Your task to perform on an android device: check storage Image 0: 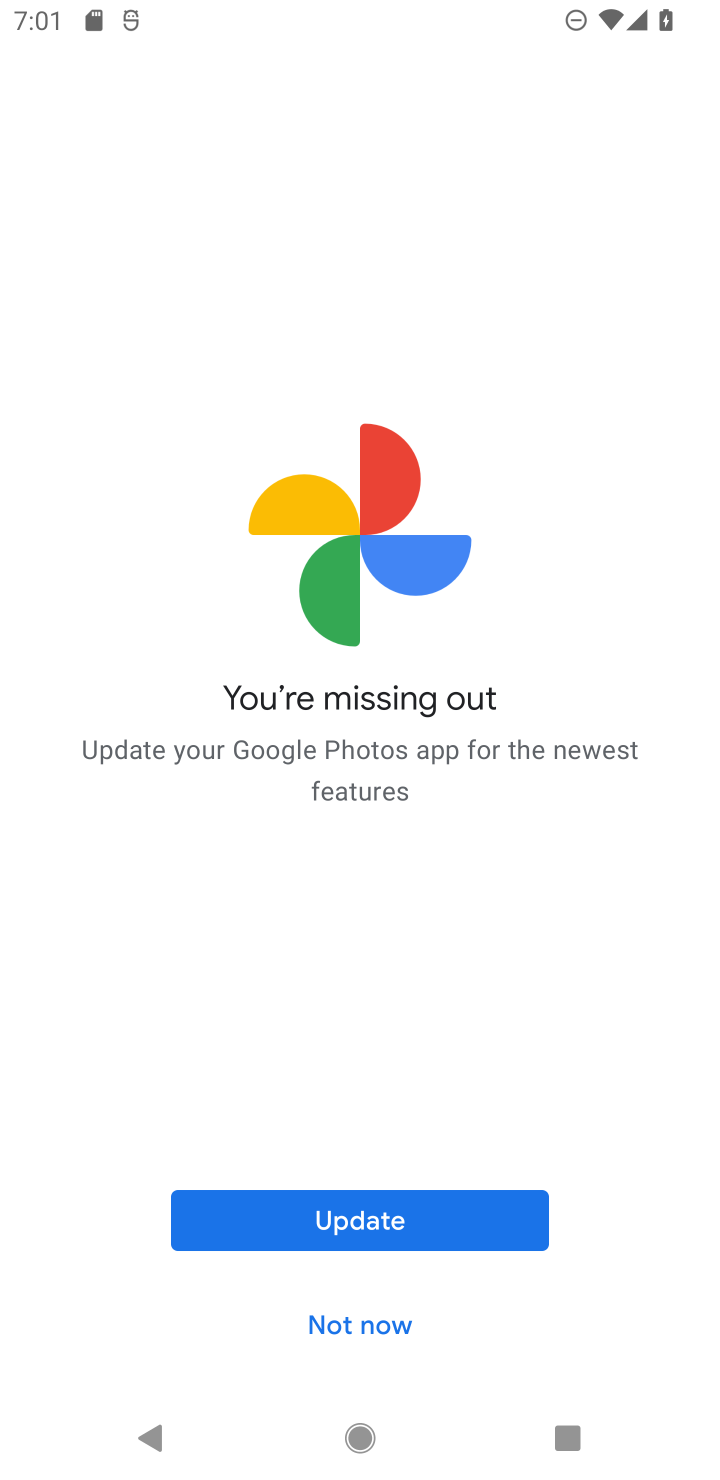
Step 0: press home button
Your task to perform on an android device: check storage Image 1: 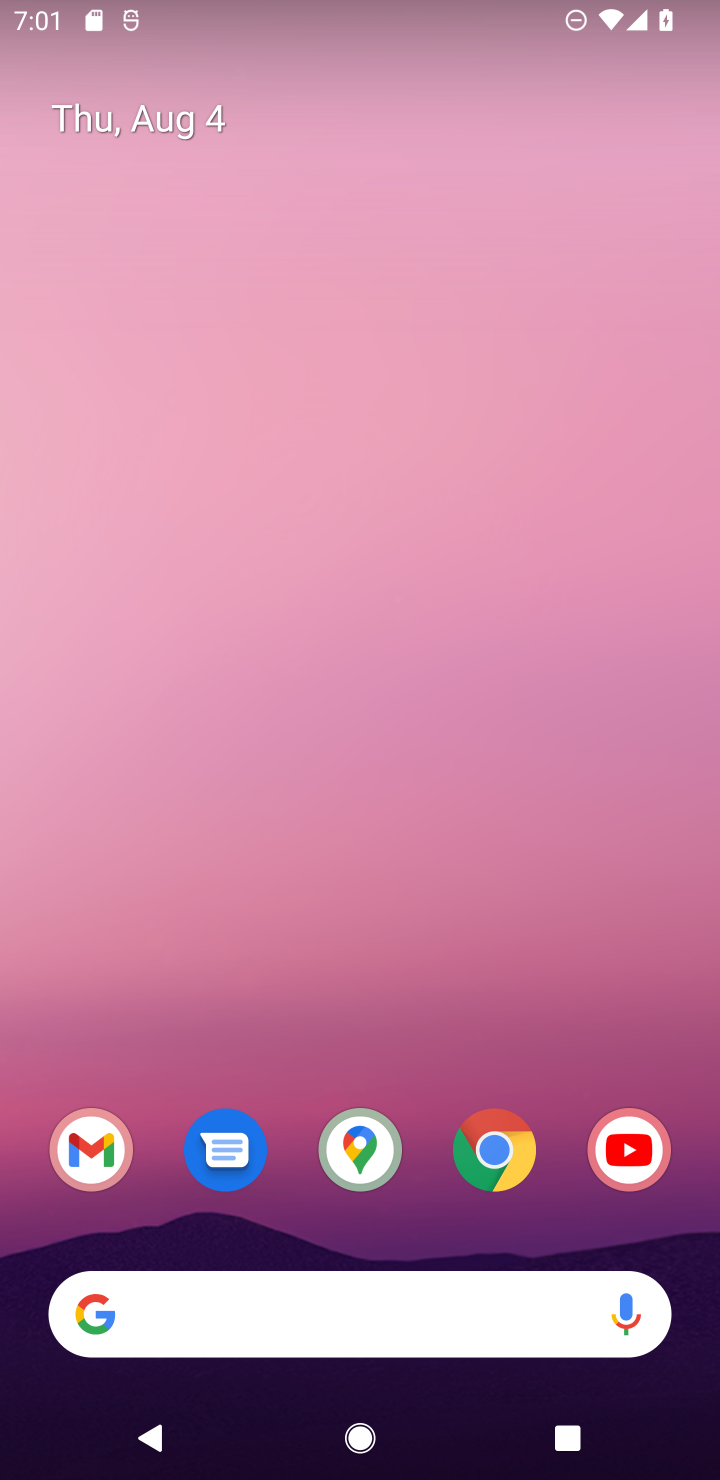
Step 1: drag from (420, 1217) to (187, 93)
Your task to perform on an android device: check storage Image 2: 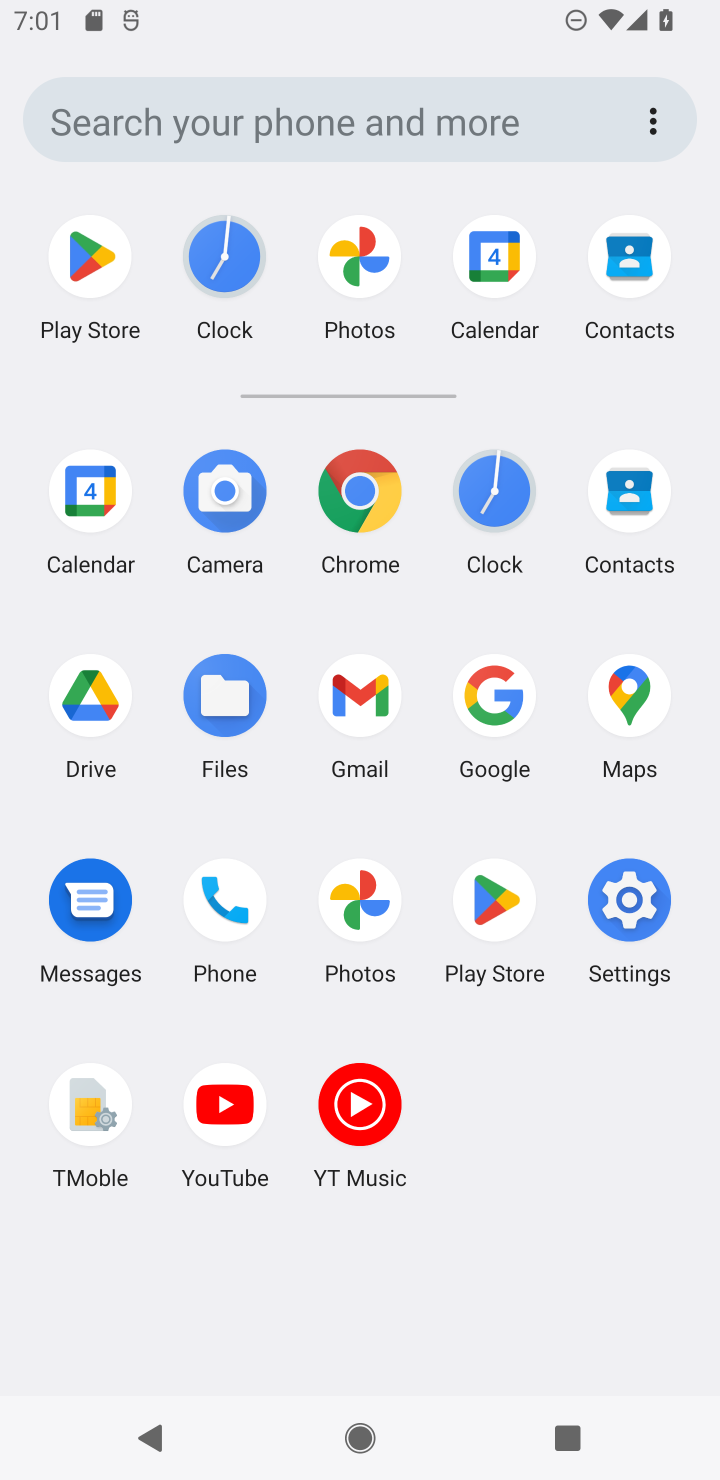
Step 2: click (636, 877)
Your task to perform on an android device: check storage Image 3: 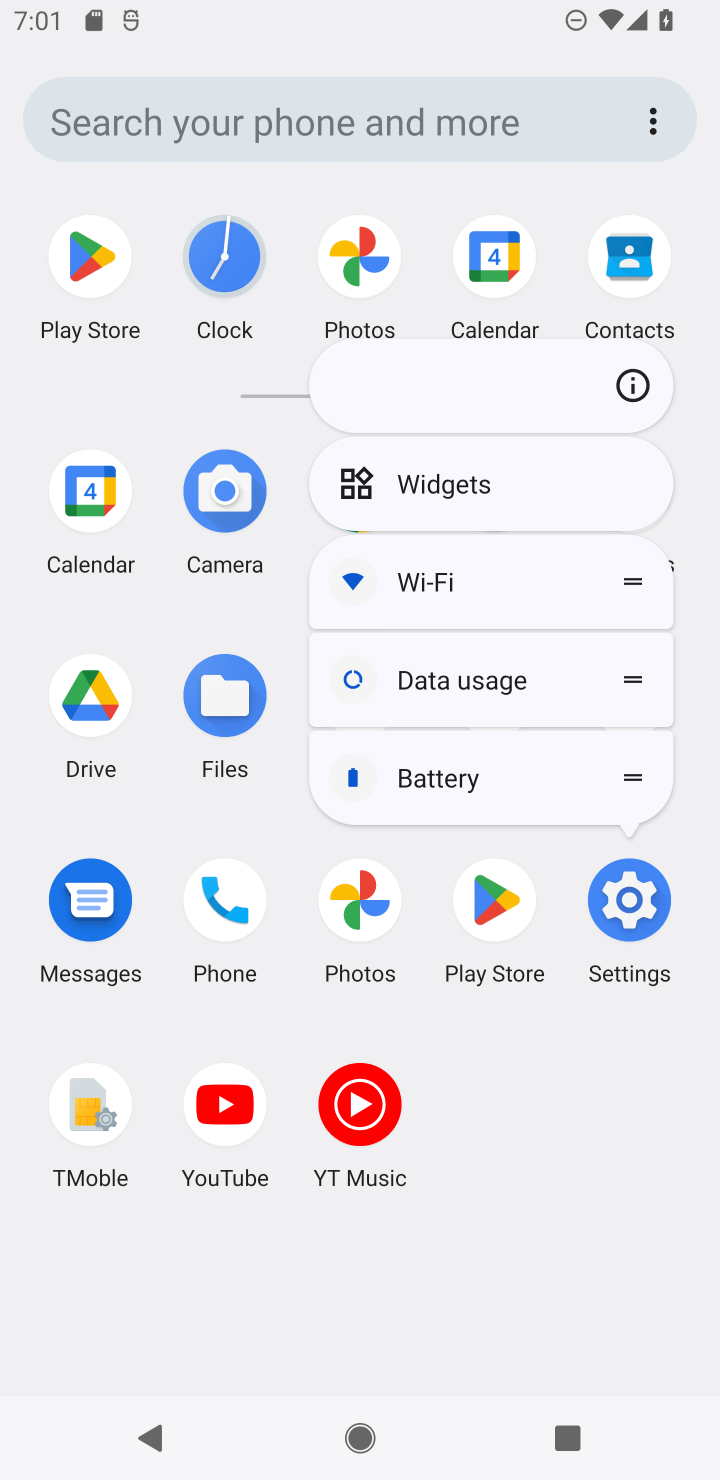
Step 3: click (636, 877)
Your task to perform on an android device: check storage Image 4: 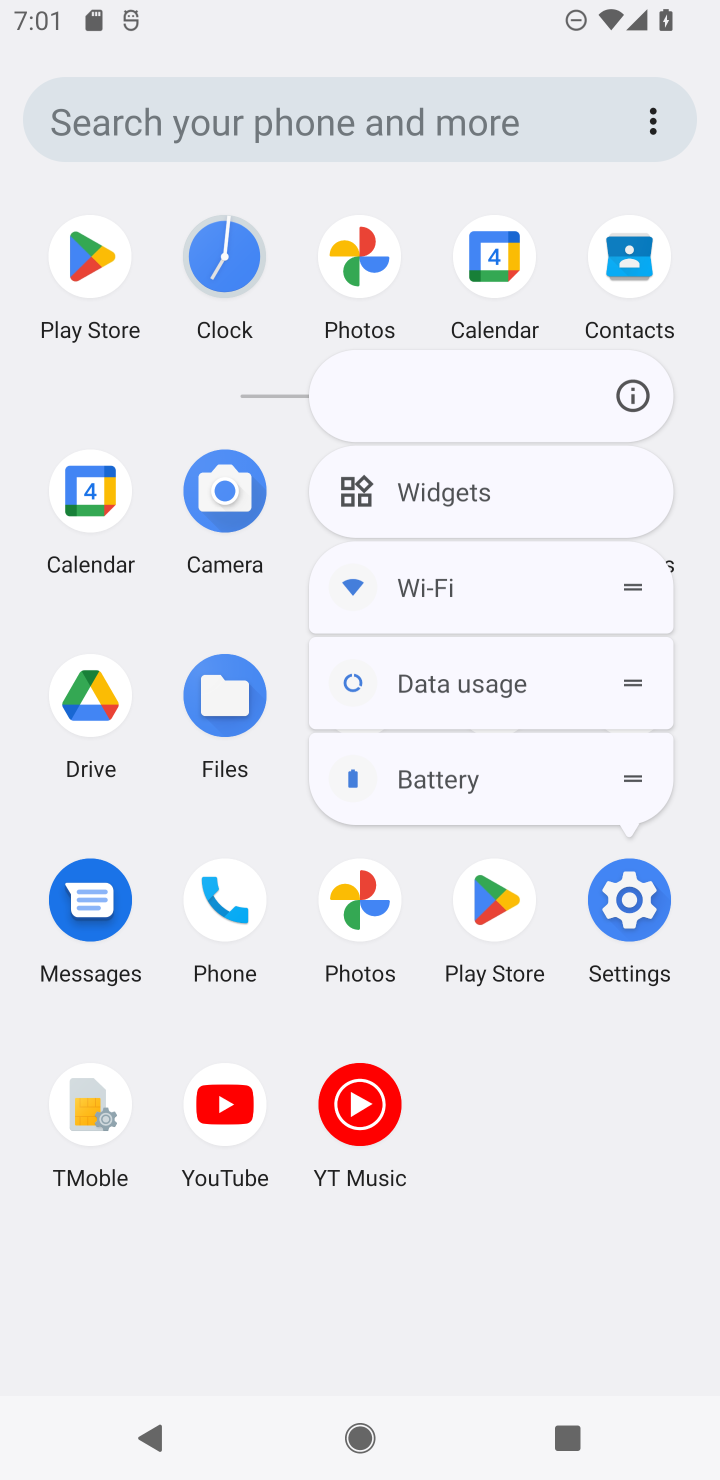
Step 4: click (636, 877)
Your task to perform on an android device: check storage Image 5: 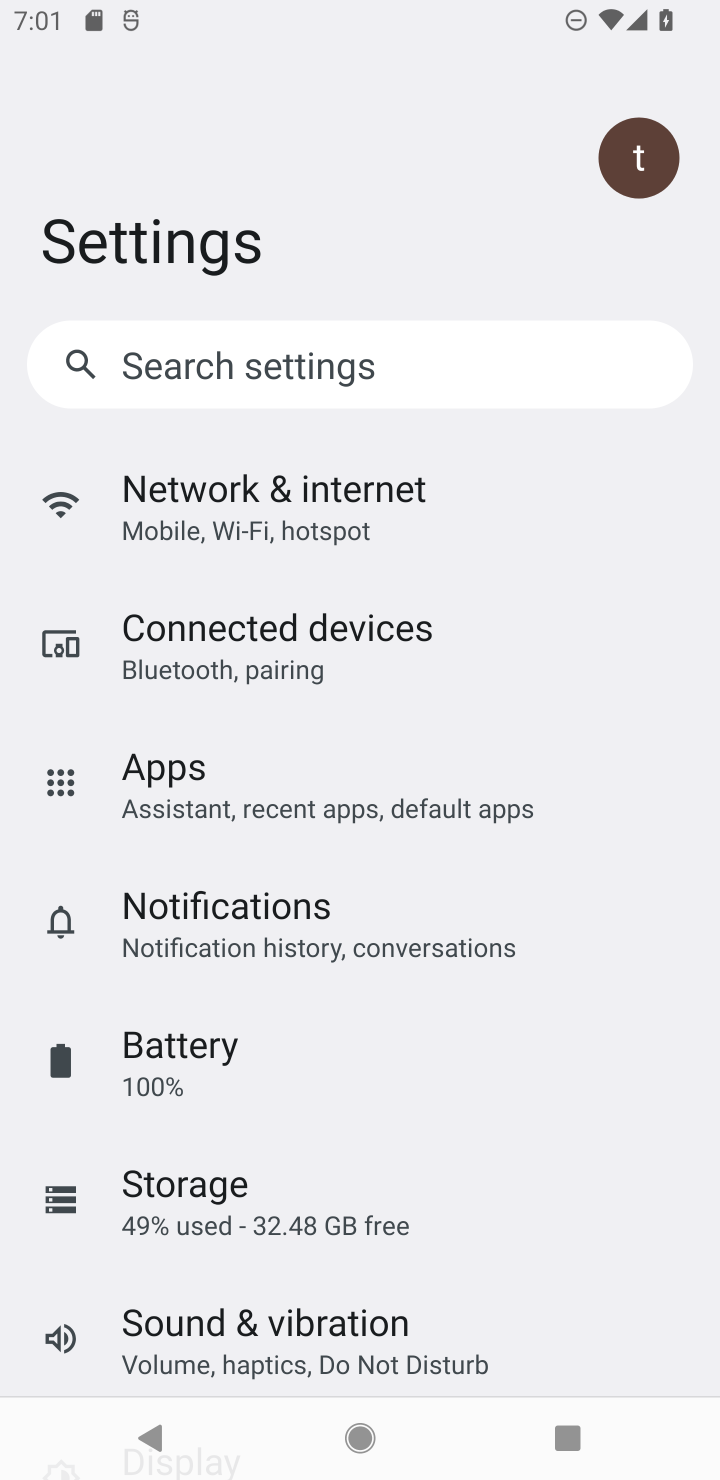
Step 5: click (285, 1226)
Your task to perform on an android device: check storage Image 6: 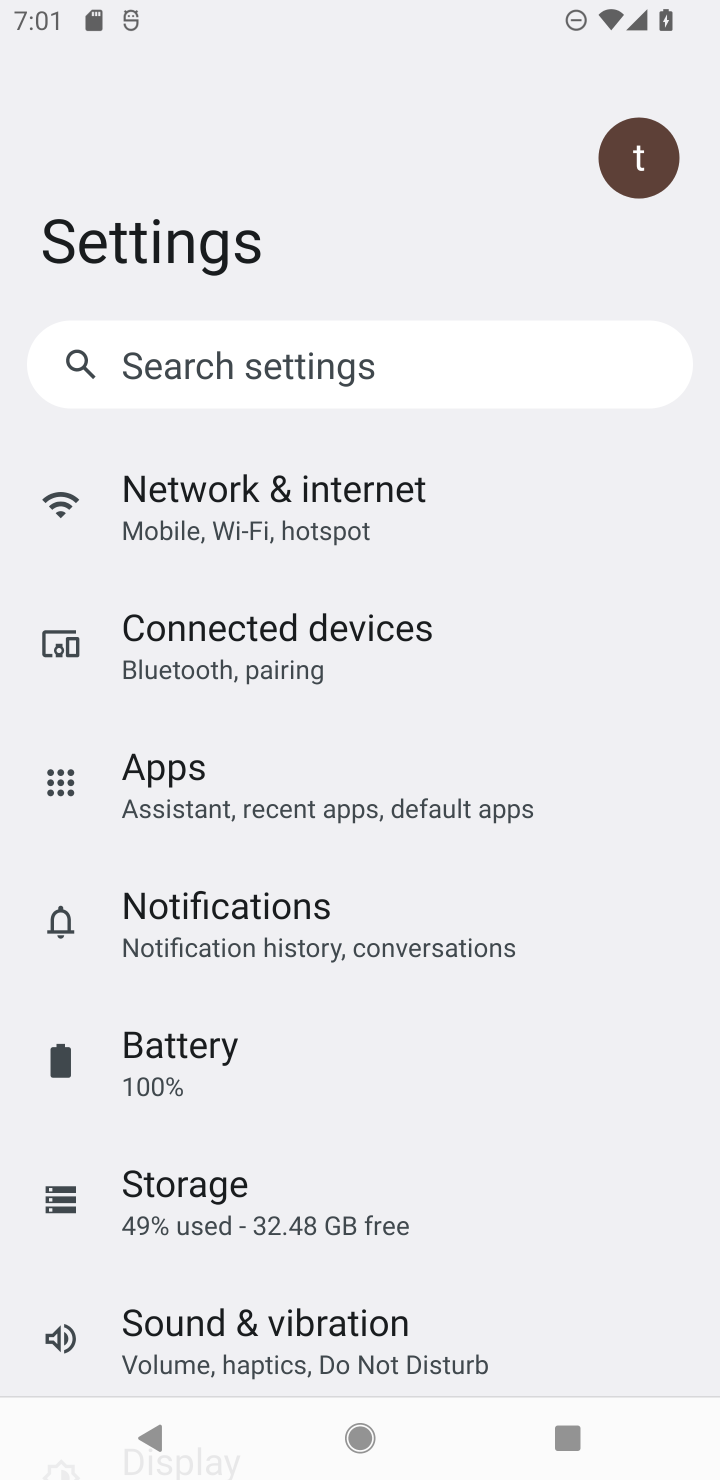
Step 6: click (285, 1226)
Your task to perform on an android device: check storage Image 7: 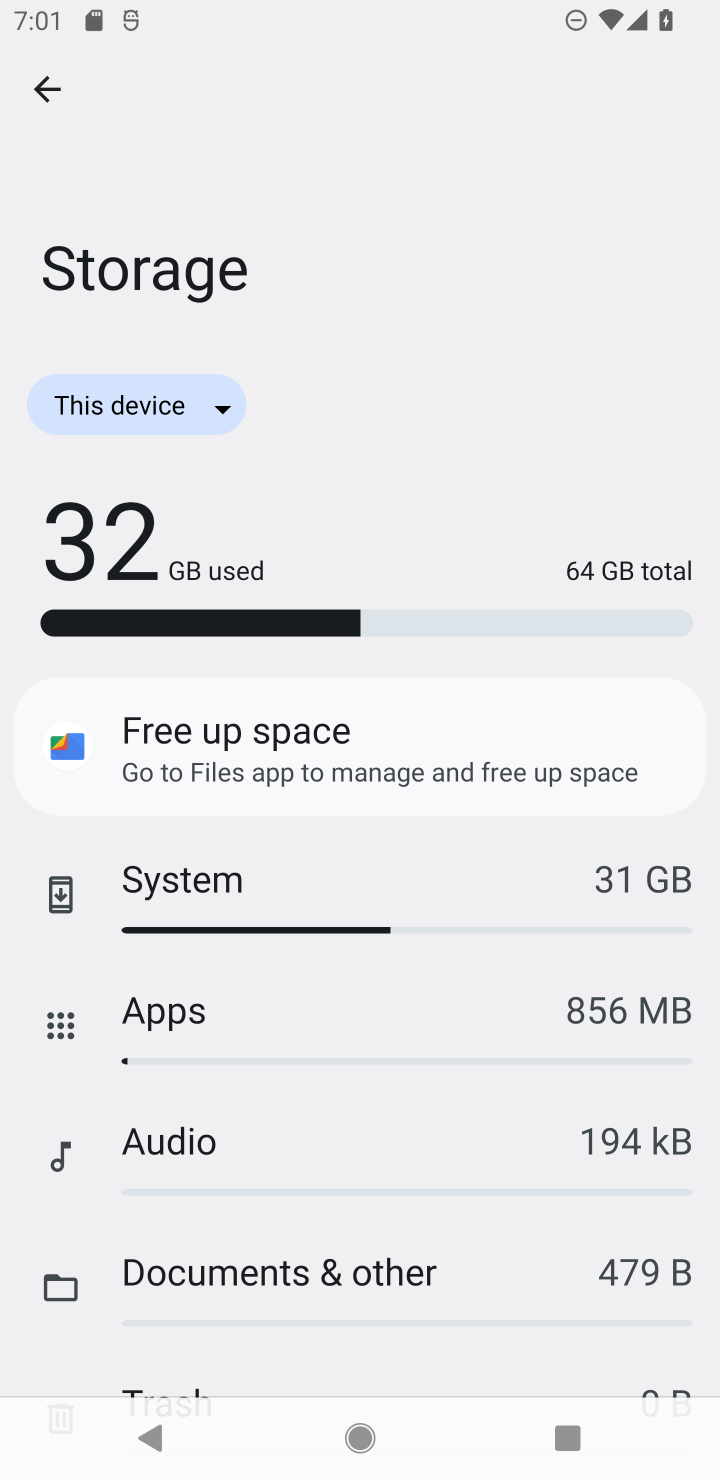
Step 7: task complete